Your task to perform on an android device: see tabs open on other devices in the chrome app Image 0: 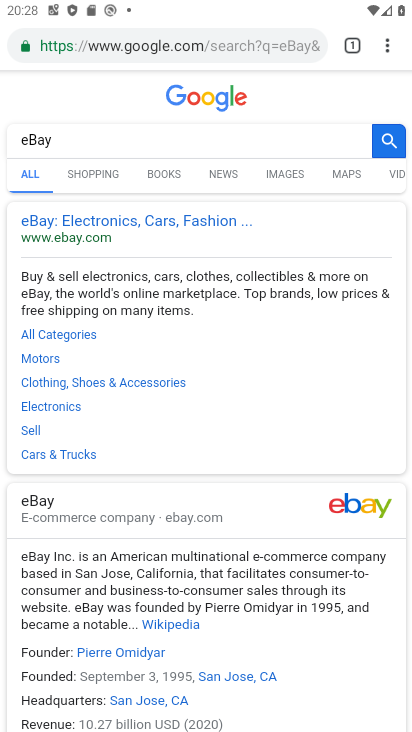
Step 0: click (388, 45)
Your task to perform on an android device: see tabs open on other devices in the chrome app Image 1: 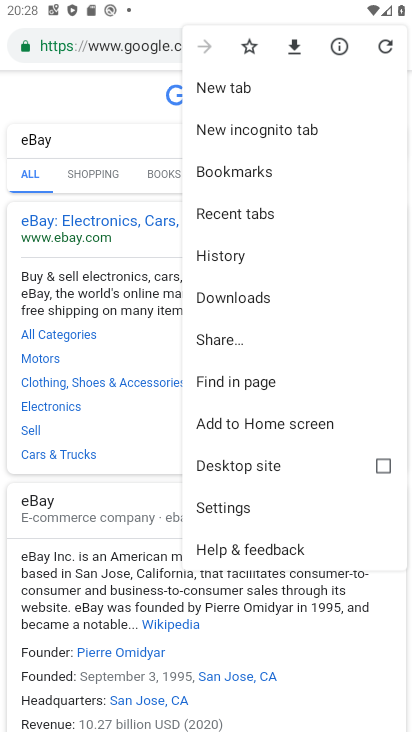
Step 1: click (264, 223)
Your task to perform on an android device: see tabs open on other devices in the chrome app Image 2: 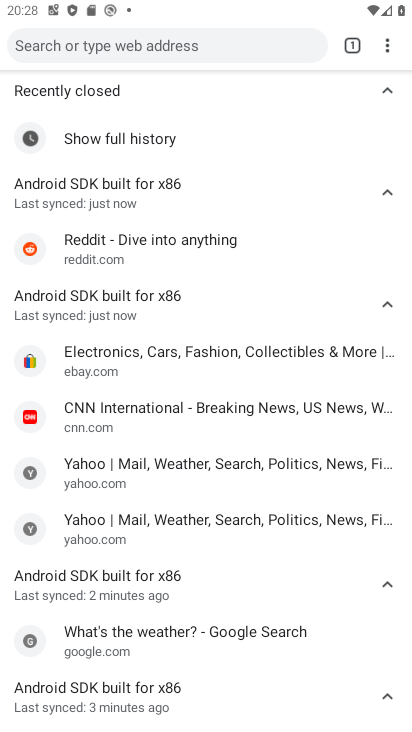
Step 2: task complete